Your task to perform on an android device: Open Google Image 0: 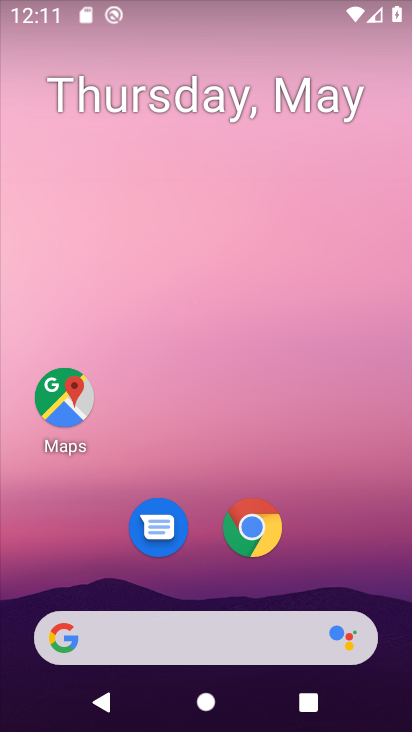
Step 0: drag from (227, 599) to (260, 15)
Your task to perform on an android device: Open Google Image 1: 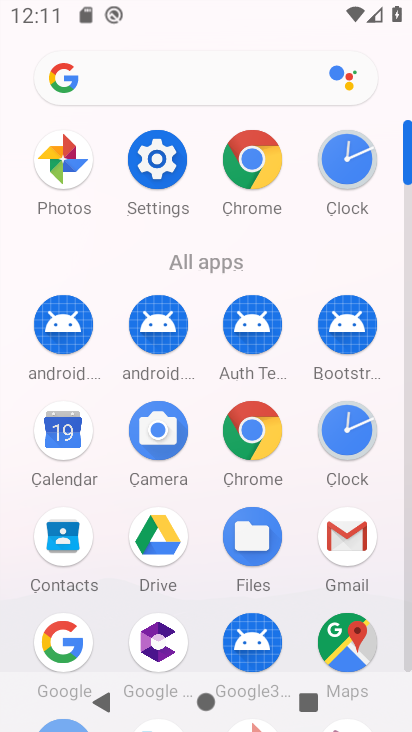
Step 1: click (48, 639)
Your task to perform on an android device: Open Google Image 2: 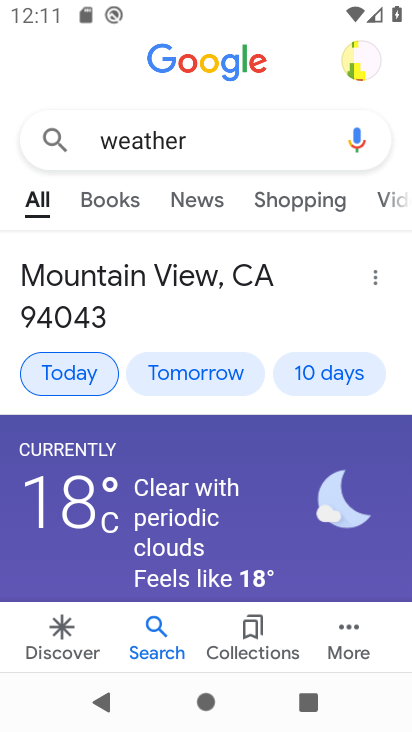
Step 2: task complete